Your task to perform on an android device: turn off picture-in-picture Image 0: 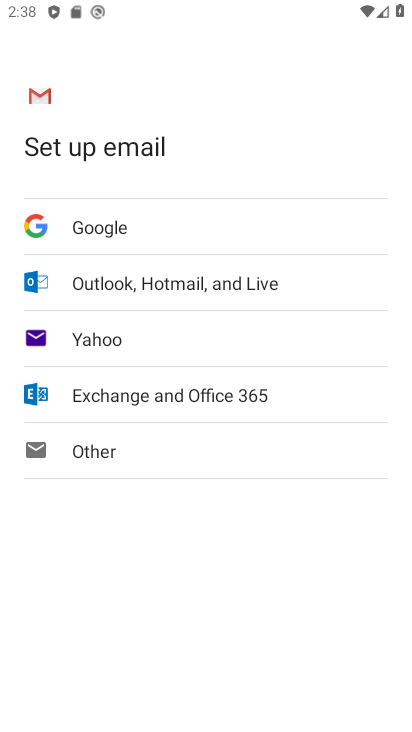
Step 0: press home button
Your task to perform on an android device: turn off picture-in-picture Image 1: 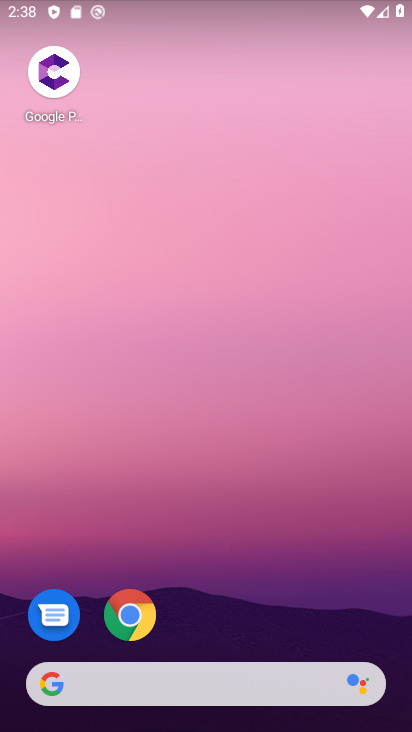
Step 1: click (128, 623)
Your task to perform on an android device: turn off picture-in-picture Image 2: 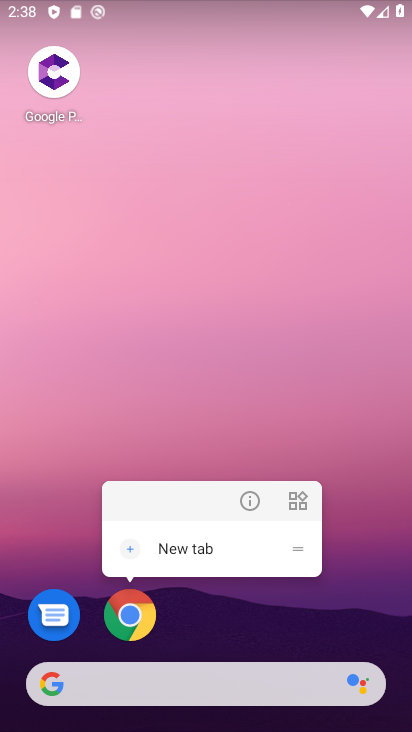
Step 2: click (247, 499)
Your task to perform on an android device: turn off picture-in-picture Image 3: 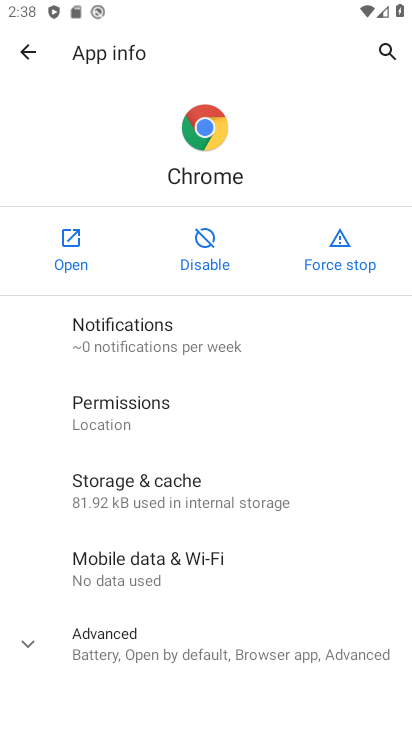
Step 3: drag from (265, 538) to (238, 120)
Your task to perform on an android device: turn off picture-in-picture Image 4: 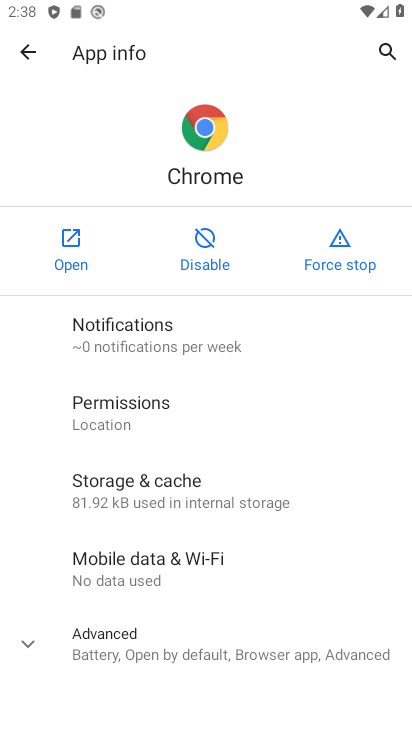
Step 4: click (29, 651)
Your task to perform on an android device: turn off picture-in-picture Image 5: 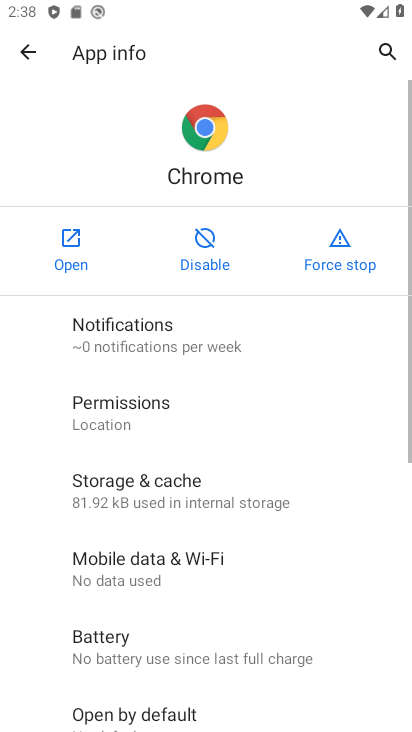
Step 5: drag from (235, 628) to (231, 137)
Your task to perform on an android device: turn off picture-in-picture Image 6: 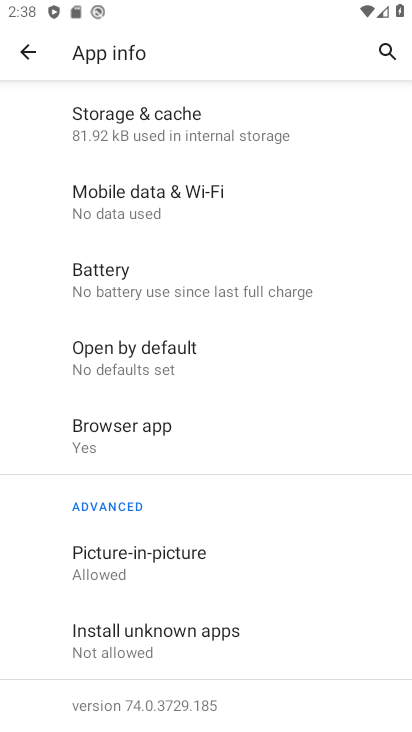
Step 6: click (124, 552)
Your task to perform on an android device: turn off picture-in-picture Image 7: 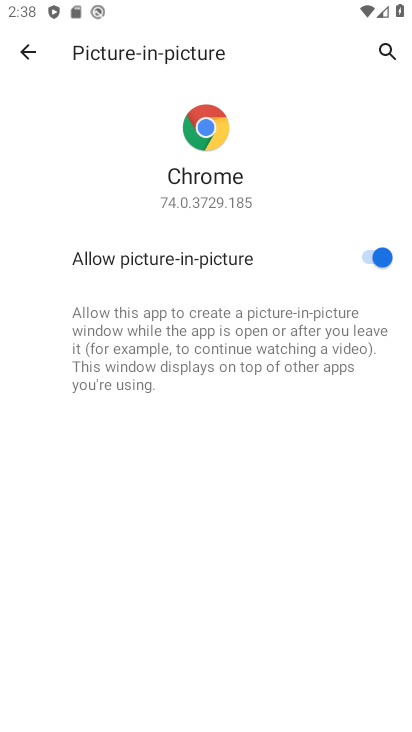
Step 7: click (380, 264)
Your task to perform on an android device: turn off picture-in-picture Image 8: 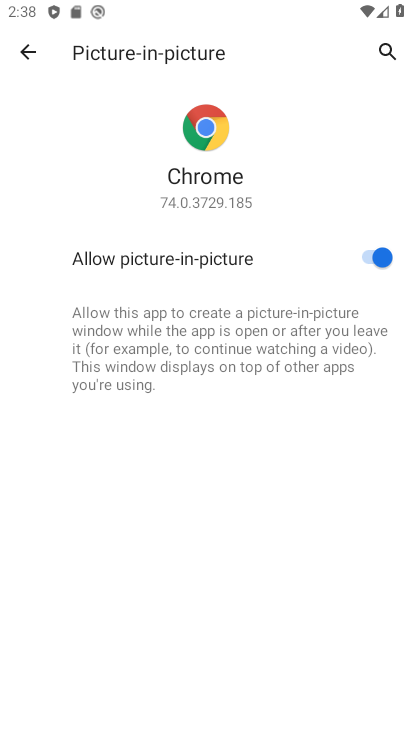
Step 8: click (387, 254)
Your task to perform on an android device: turn off picture-in-picture Image 9: 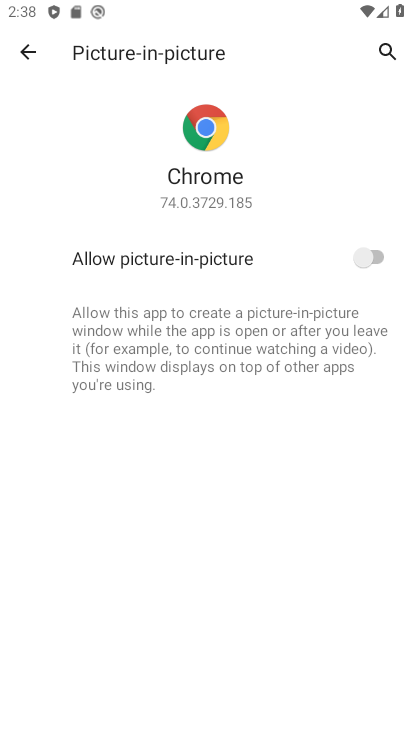
Step 9: task complete